Your task to perform on an android device: empty trash in the gmail app Image 0: 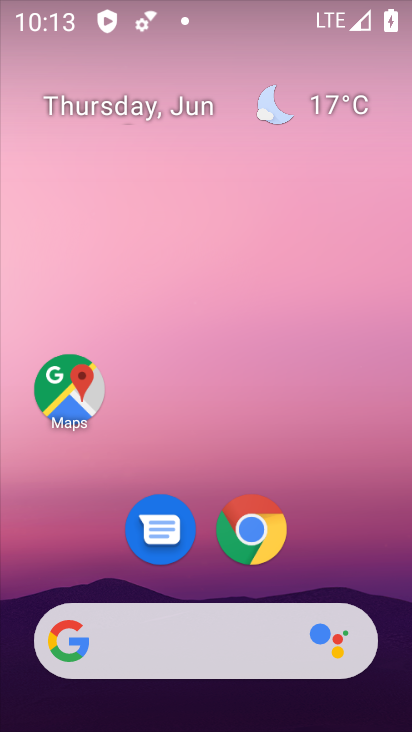
Step 0: drag from (202, 558) to (178, 0)
Your task to perform on an android device: empty trash in the gmail app Image 1: 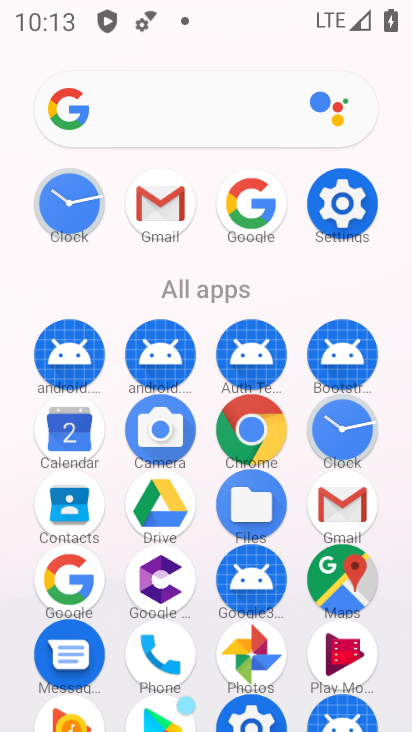
Step 1: click (150, 202)
Your task to perform on an android device: empty trash in the gmail app Image 2: 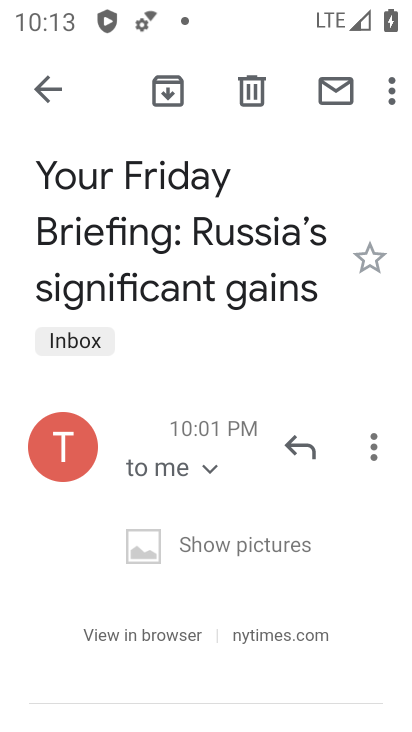
Step 2: click (41, 82)
Your task to perform on an android device: empty trash in the gmail app Image 3: 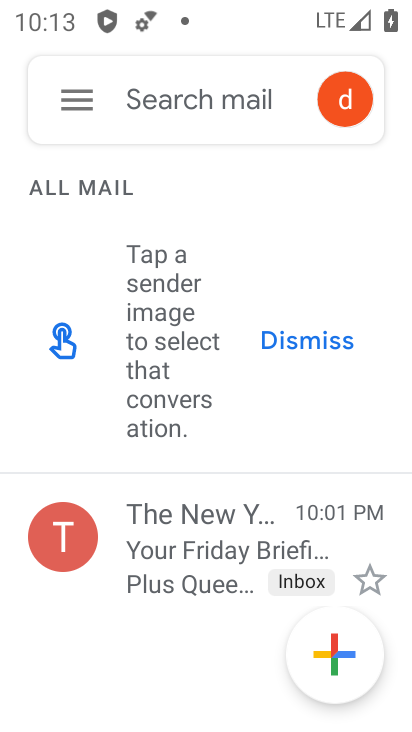
Step 3: click (84, 112)
Your task to perform on an android device: empty trash in the gmail app Image 4: 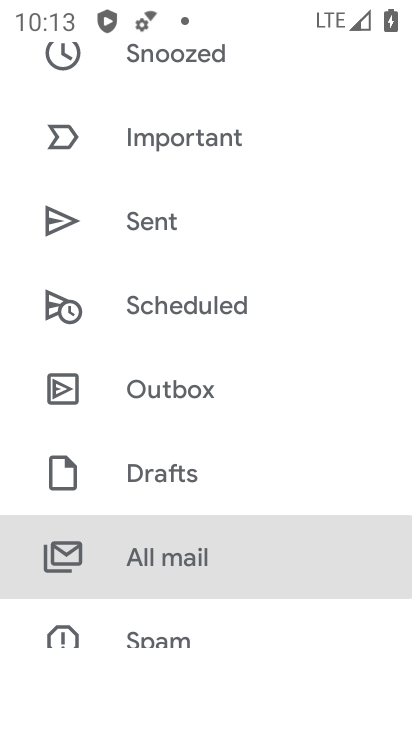
Step 4: drag from (169, 529) to (179, 205)
Your task to perform on an android device: empty trash in the gmail app Image 5: 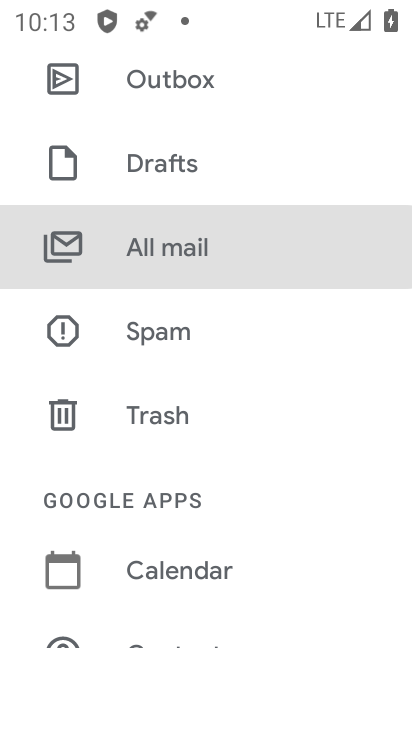
Step 5: click (176, 419)
Your task to perform on an android device: empty trash in the gmail app Image 6: 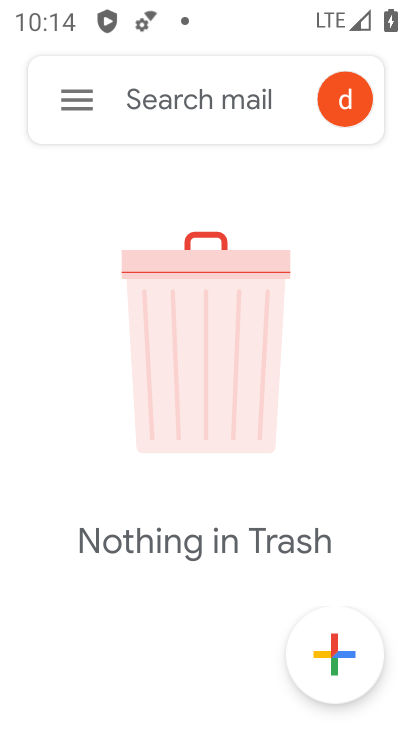
Step 6: task complete